Your task to perform on an android device: clear history in the chrome app Image 0: 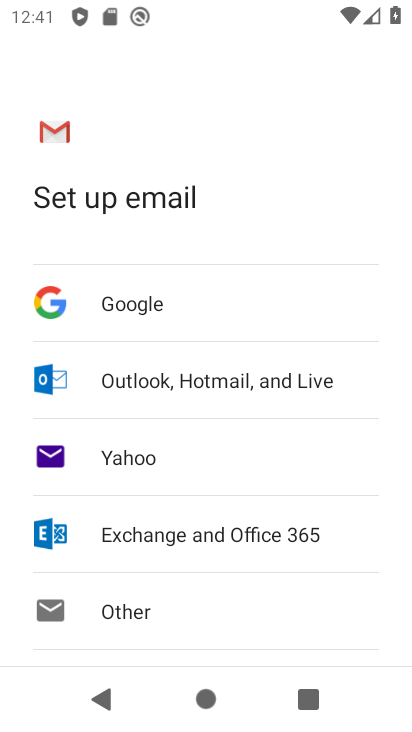
Step 0: press home button
Your task to perform on an android device: clear history in the chrome app Image 1: 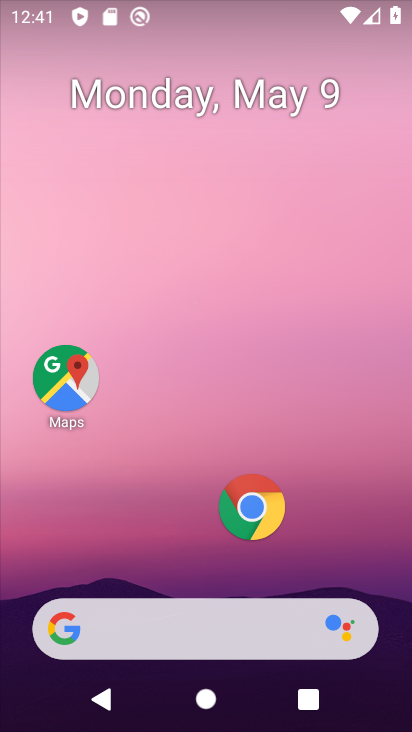
Step 1: click (247, 510)
Your task to perform on an android device: clear history in the chrome app Image 2: 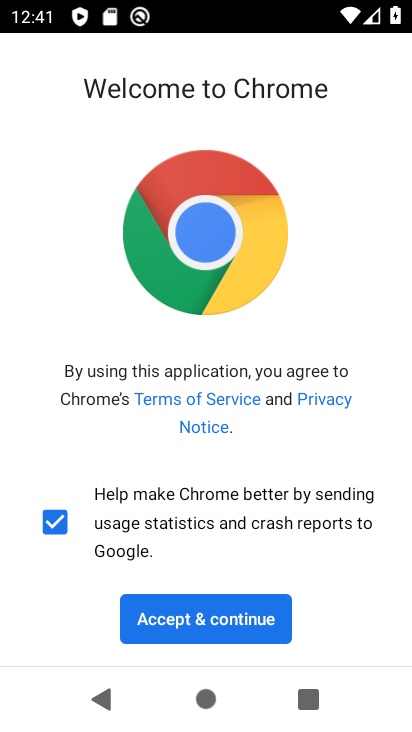
Step 2: click (181, 613)
Your task to perform on an android device: clear history in the chrome app Image 3: 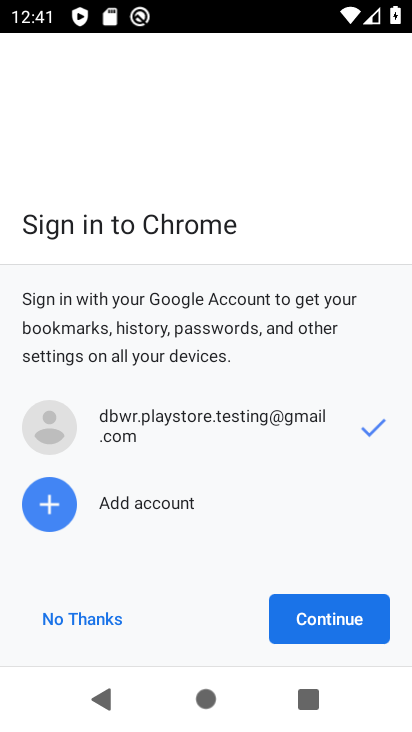
Step 3: click (313, 617)
Your task to perform on an android device: clear history in the chrome app Image 4: 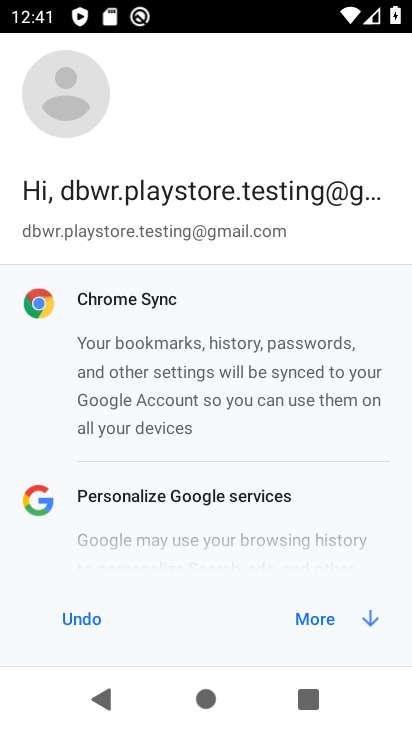
Step 4: click (310, 617)
Your task to perform on an android device: clear history in the chrome app Image 5: 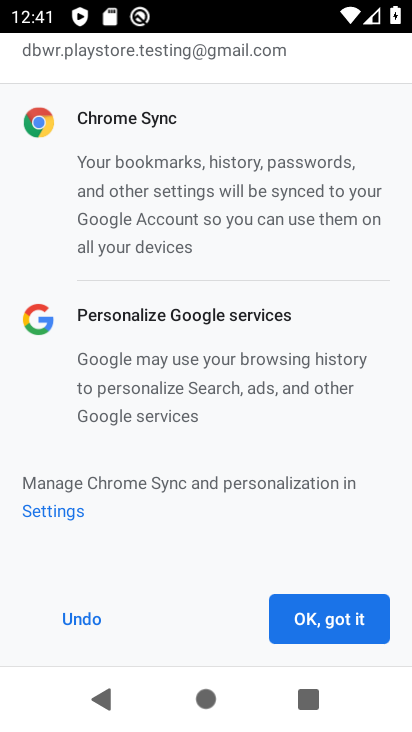
Step 5: click (310, 617)
Your task to perform on an android device: clear history in the chrome app Image 6: 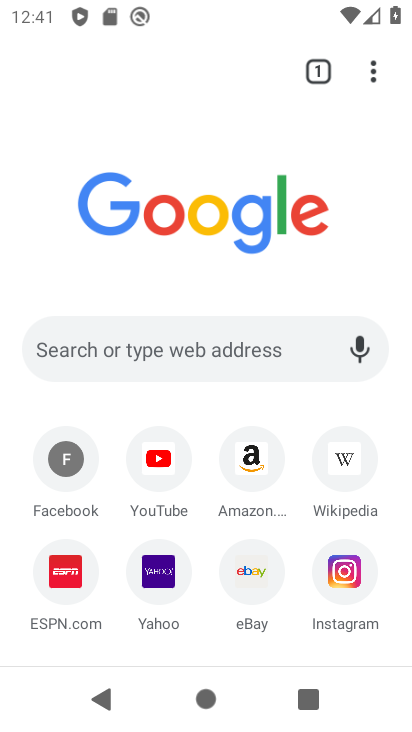
Step 6: click (365, 73)
Your task to perform on an android device: clear history in the chrome app Image 7: 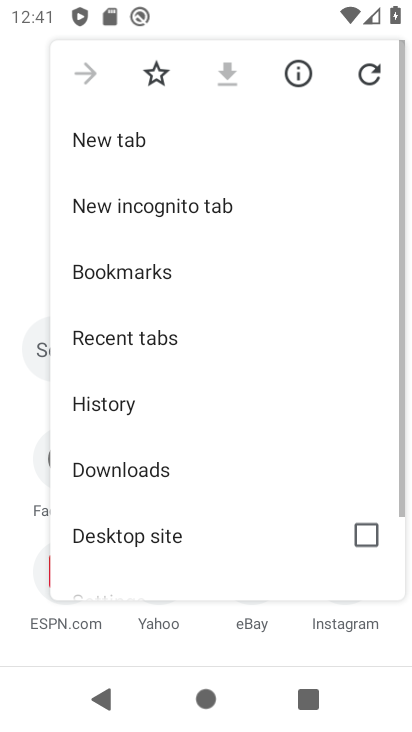
Step 7: drag from (235, 518) to (252, 95)
Your task to perform on an android device: clear history in the chrome app Image 8: 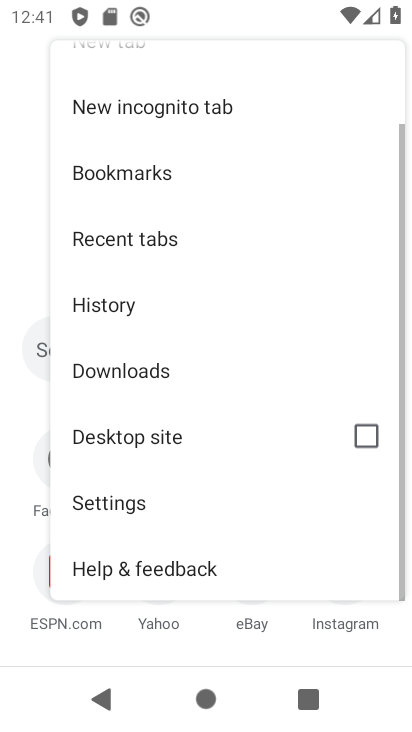
Step 8: click (140, 497)
Your task to perform on an android device: clear history in the chrome app Image 9: 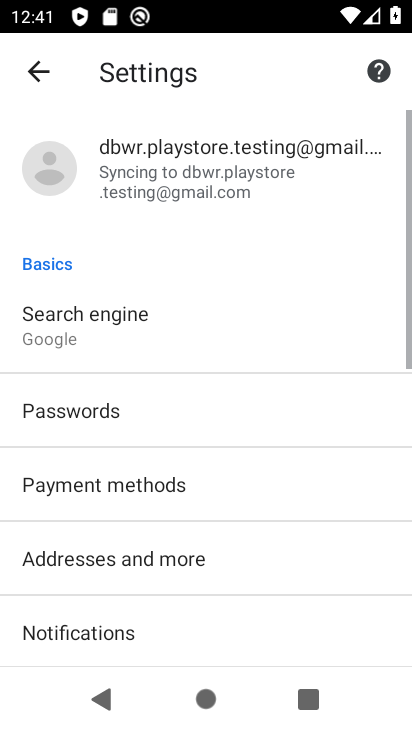
Step 9: drag from (206, 519) to (257, 33)
Your task to perform on an android device: clear history in the chrome app Image 10: 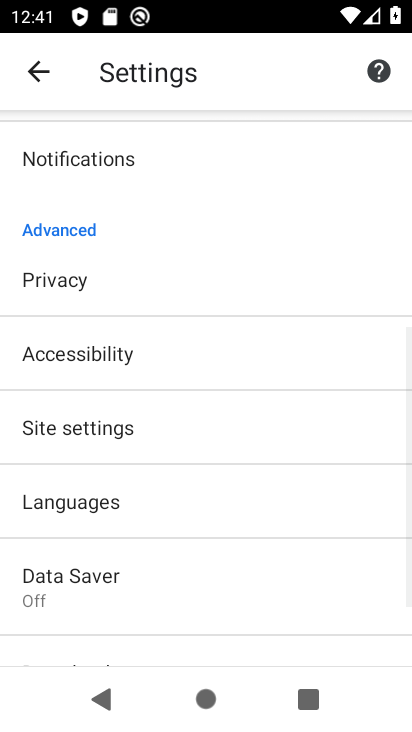
Step 10: drag from (121, 564) to (212, 145)
Your task to perform on an android device: clear history in the chrome app Image 11: 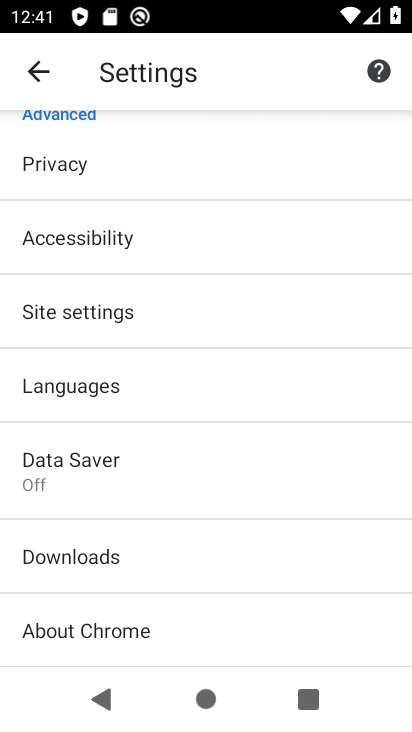
Step 11: click (109, 158)
Your task to perform on an android device: clear history in the chrome app Image 12: 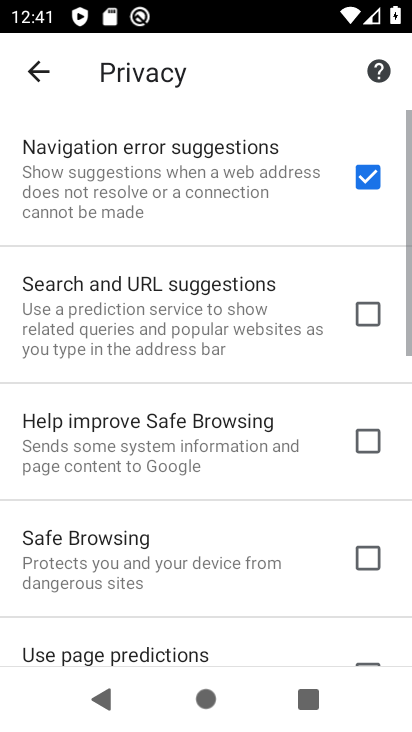
Step 12: drag from (262, 617) to (239, 33)
Your task to perform on an android device: clear history in the chrome app Image 13: 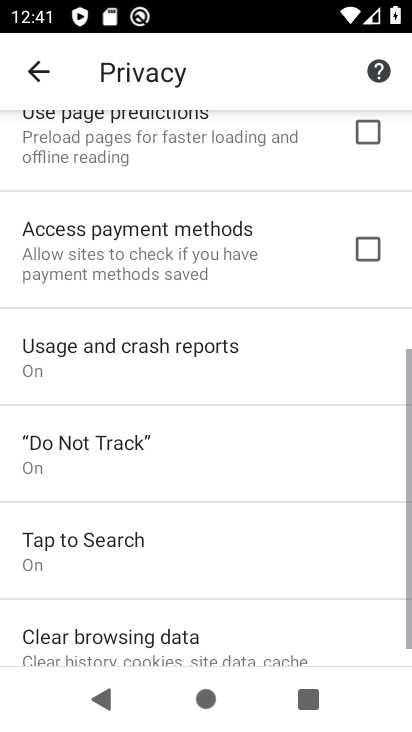
Step 13: click (108, 648)
Your task to perform on an android device: clear history in the chrome app Image 14: 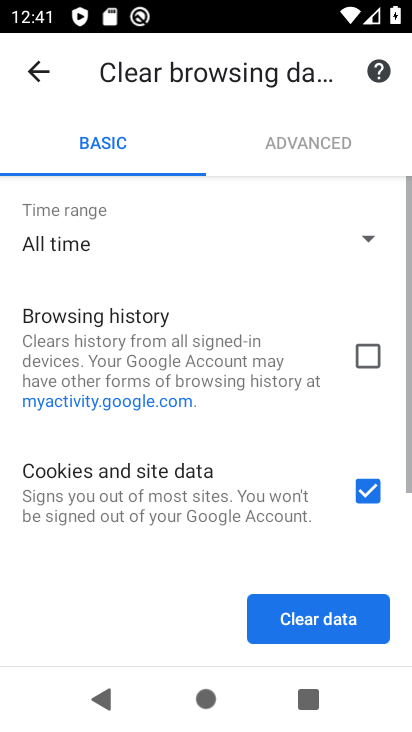
Step 14: drag from (301, 413) to (304, 167)
Your task to perform on an android device: clear history in the chrome app Image 15: 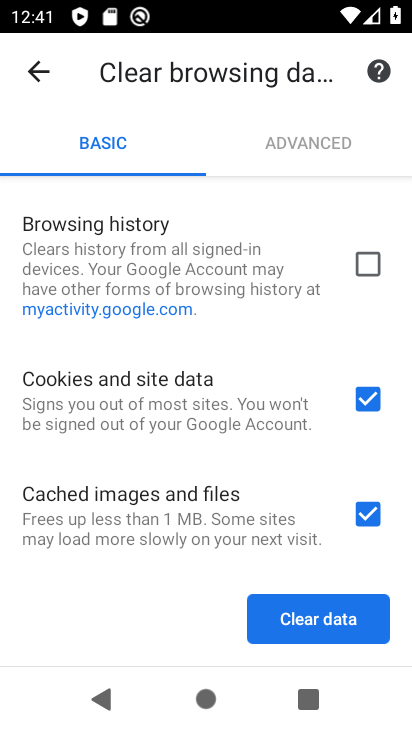
Step 15: click (374, 257)
Your task to perform on an android device: clear history in the chrome app Image 16: 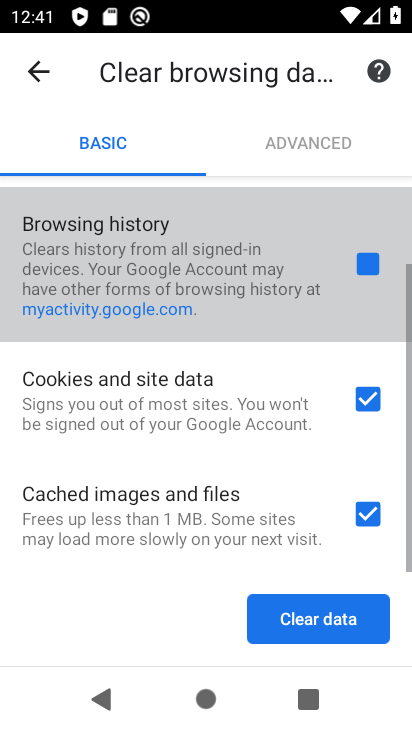
Step 16: click (370, 394)
Your task to perform on an android device: clear history in the chrome app Image 17: 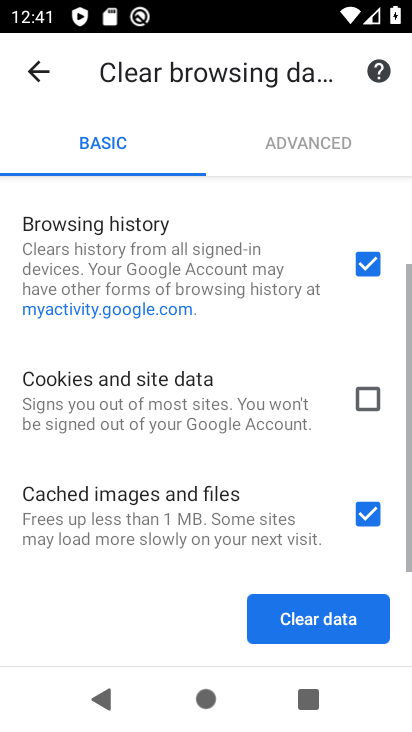
Step 17: click (364, 510)
Your task to perform on an android device: clear history in the chrome app Image 18: 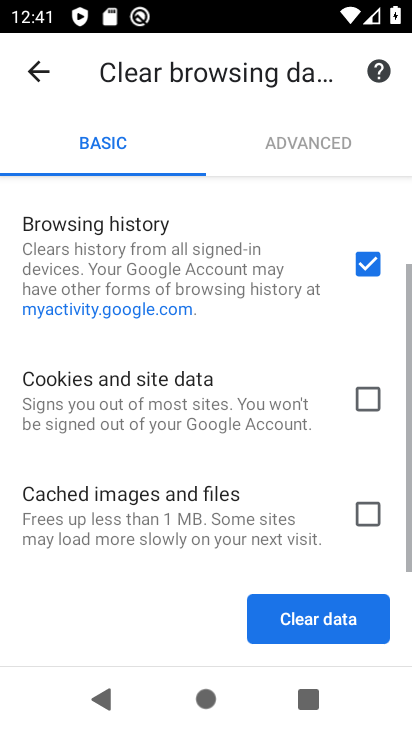
Step 18: click (302, 638)
Your task to perform on an android device: clear history in the chrome app Image 19: 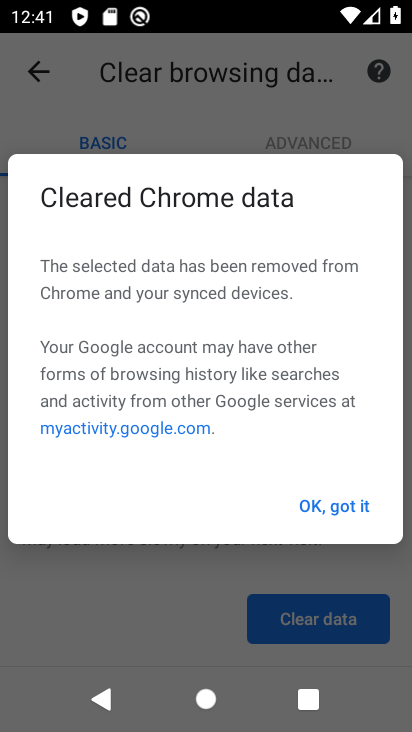
Step 19: click (328, 504)
Your task to perform on an android device: clear history in the chrome app Image 20: 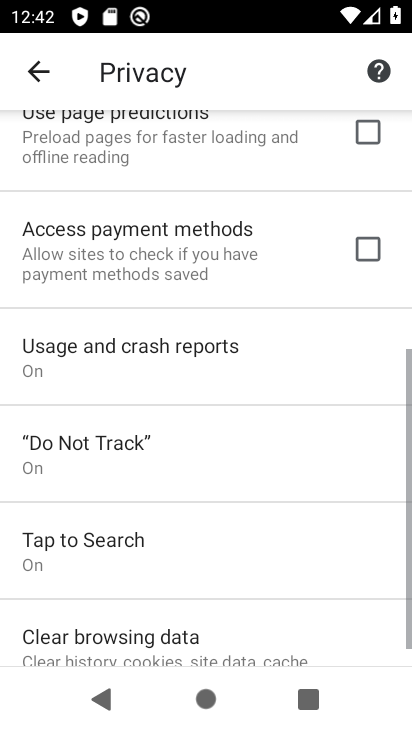
Step 20: task complete